Your task to perform on an android device: change keyboard looks Image 0: 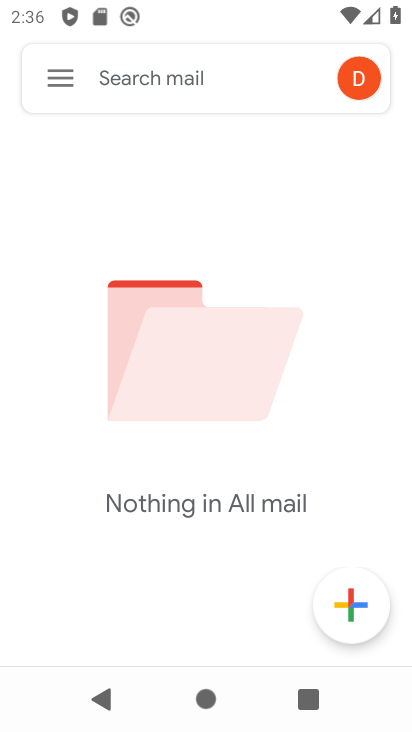
Step 0: press home button
Your task to perform on an android device: change keyboard looks Image 1: 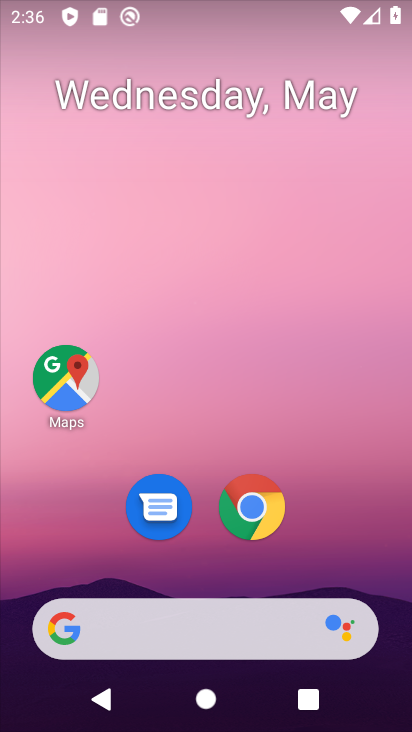
Step 1: drag from (207, 567) to (252, 100)
Your task to perform on an android device: change keyboard looks Image 2: 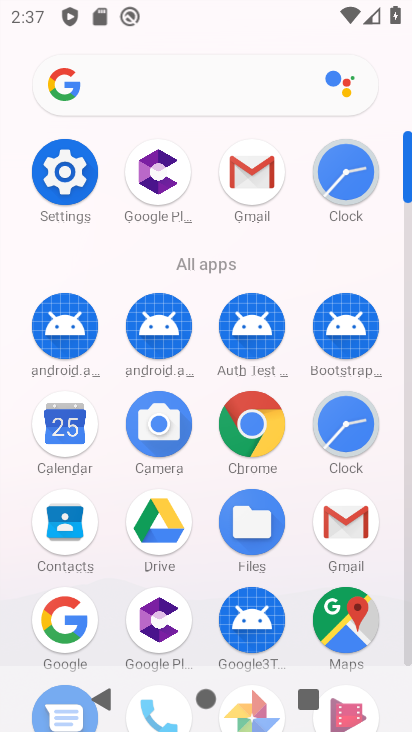
Step 2: click (58, 174)
Your task to perform on an android device: change keyboard looks Image 3: 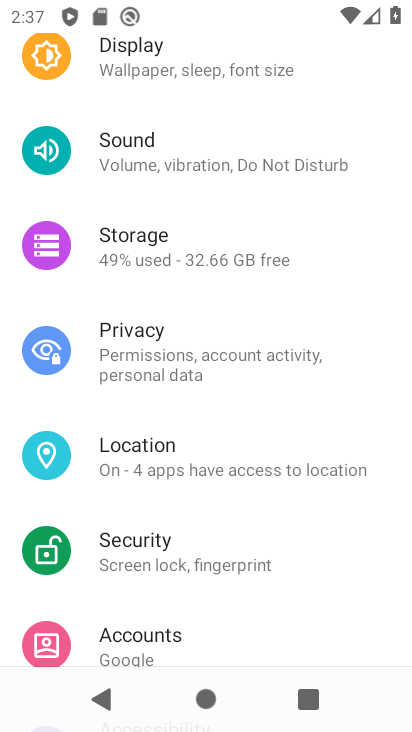
Step 3: drag from (237, 598) to (258, 63)
Your task to perform on an android device: change keyboard looks Image 4: 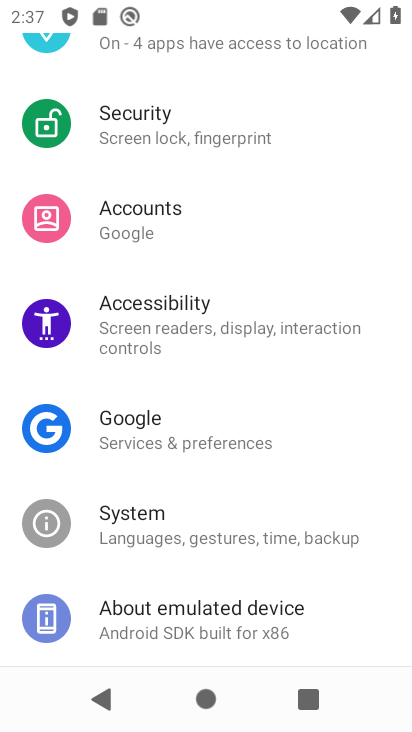
Step 4: click (158, 543)
Your task to perform on an android device: change keyboard looks Image 5: 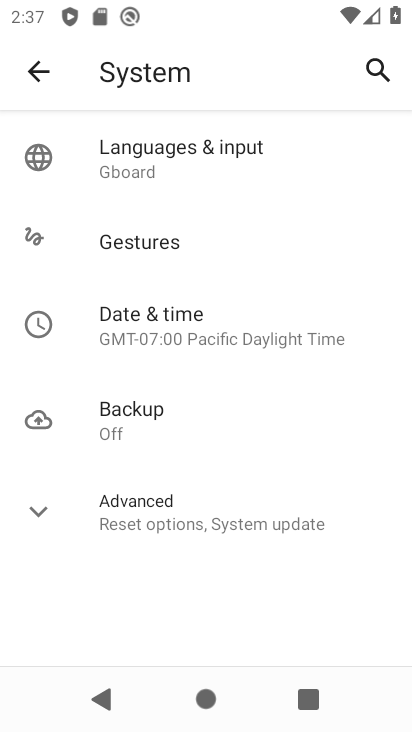
Step 5: click (176, 159)
Your task to perform on an android device: change keyboard looks Image 6: 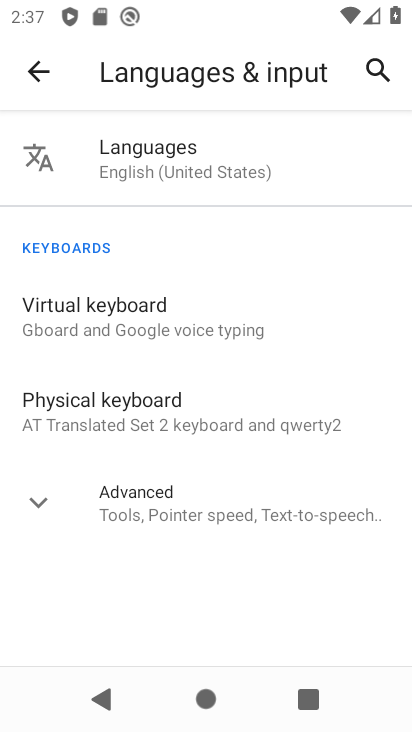
Step 6: click (176, 159)
Your task to perform on an android device: change keyboard looks Image 7: 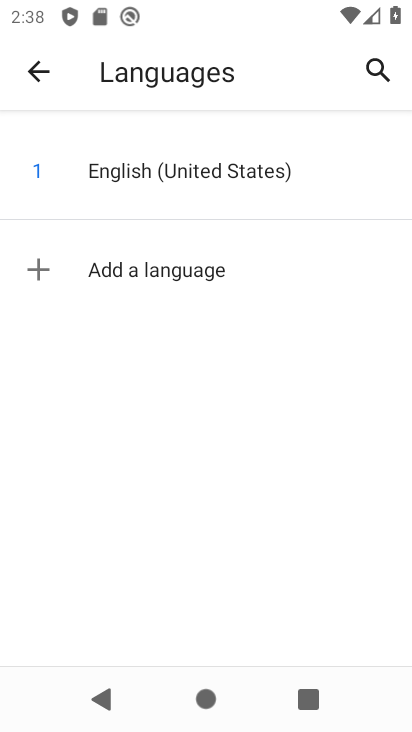
Step 7: press back button
Your task to perform on an android device: change keyboard looks Image 8: 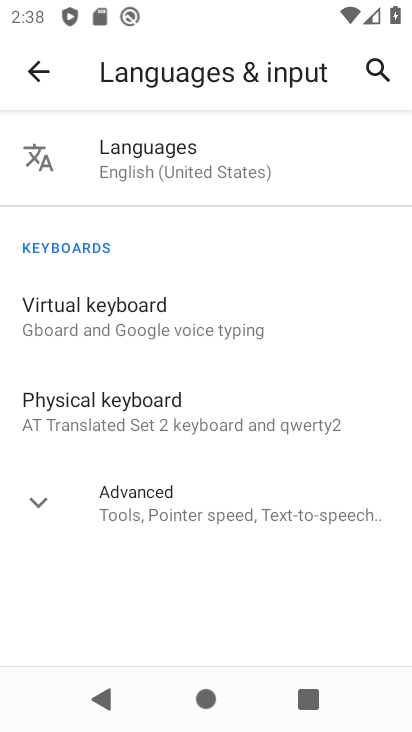
Step 8: click (164, 328)
Your task to perform on an android device: change keyboard looks Image 9: 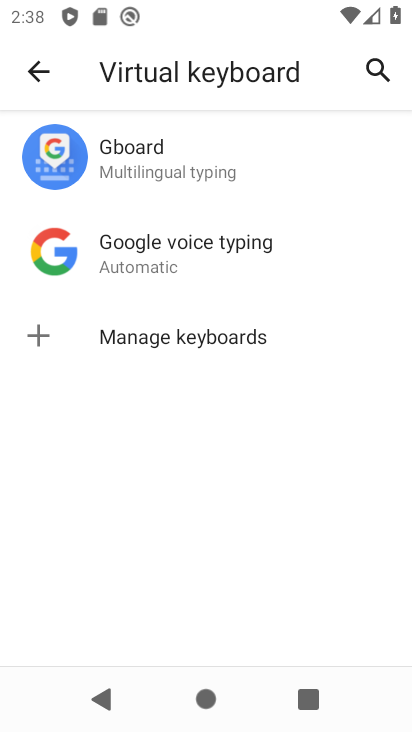
Step 9: click (157, 166)
Your task to perform on an android device: change keyboard looks Image 10: 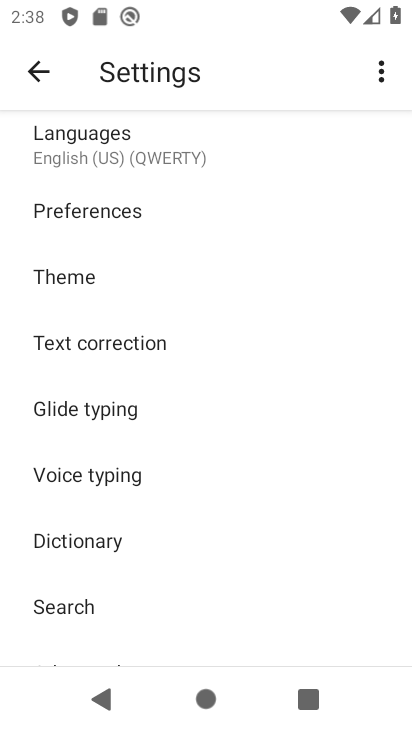
Step 10: click (132, 280)
Your task to perform on an android device: change keyboard looks Image 11: 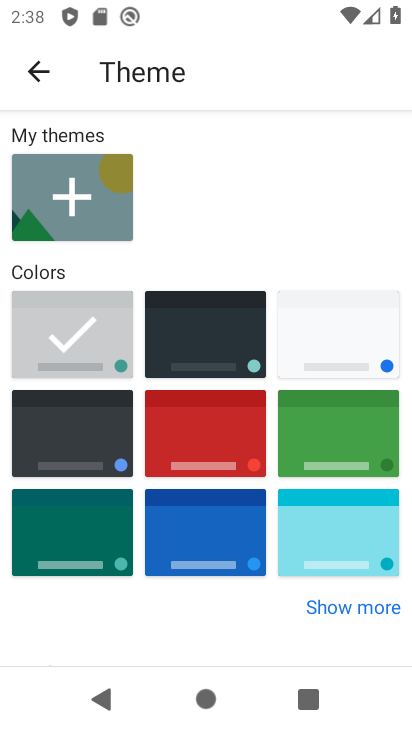
Step 11: click (215, 323)
Your task to perform on an android device: change keyboard looks Image 12: 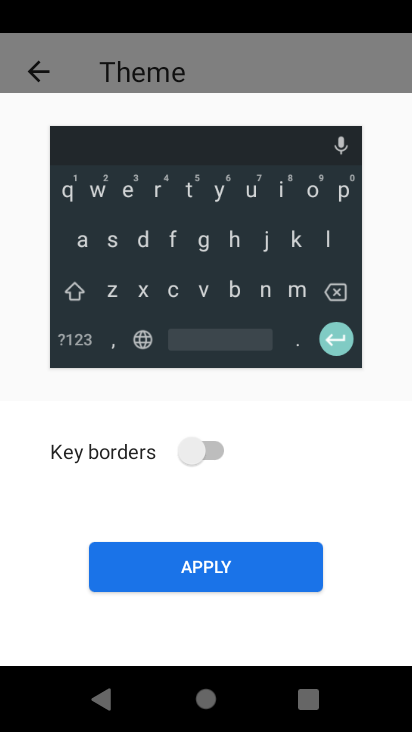
Step 12: click (226, 590)
Your task to perform on an android device: change keyboard looks Image 13: 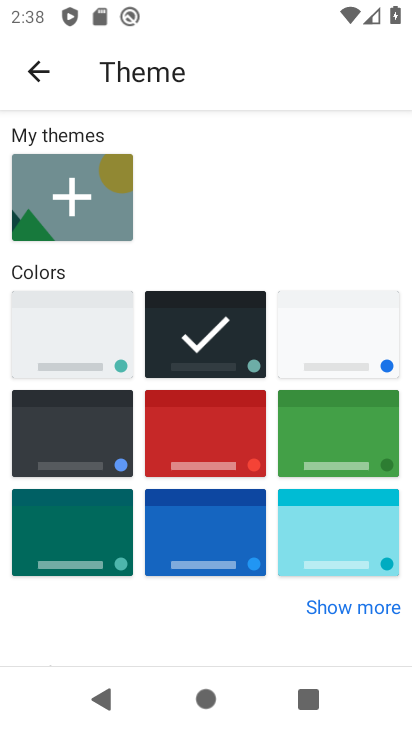
Step 13: task complete